Your task to perform on an android device: clear history in the chrome app Image 0: 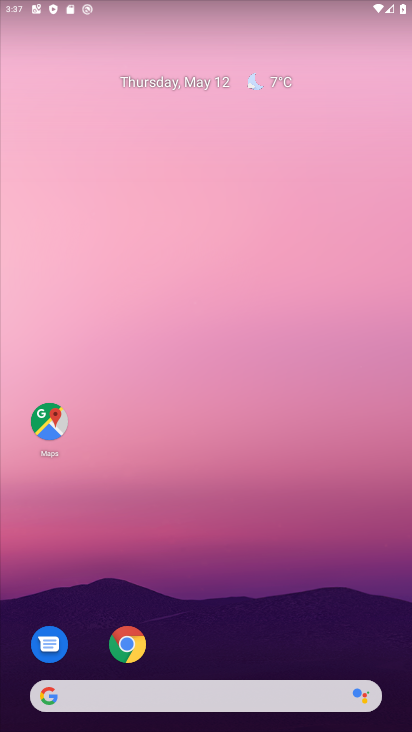
Step 0: click (129, 642)
Your task to perform on an android device: clear history in the chrome app Image 1: 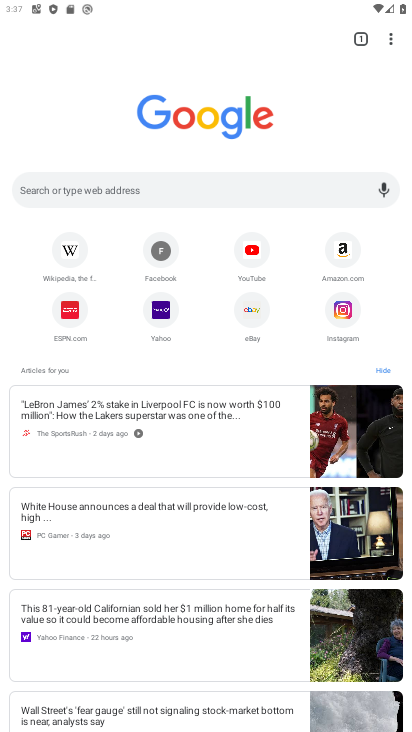
Step 1: click (396, 33)
Your task to perform on an android device: clear history in the chrome app Image 2: 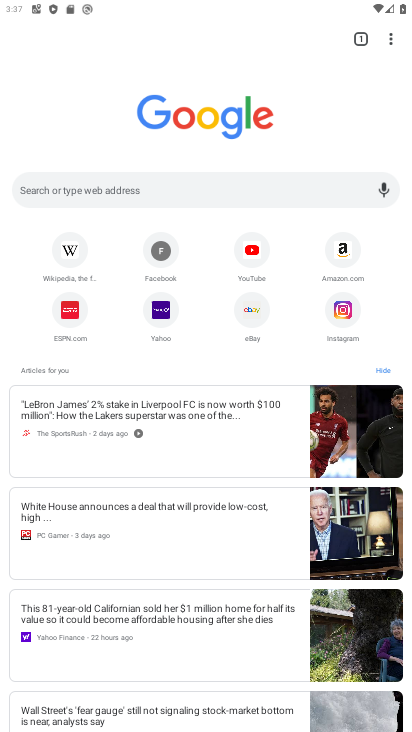
Step 2: click (390, 38)
Your task to perform on an android device: clear history in the chrome app Image 3: 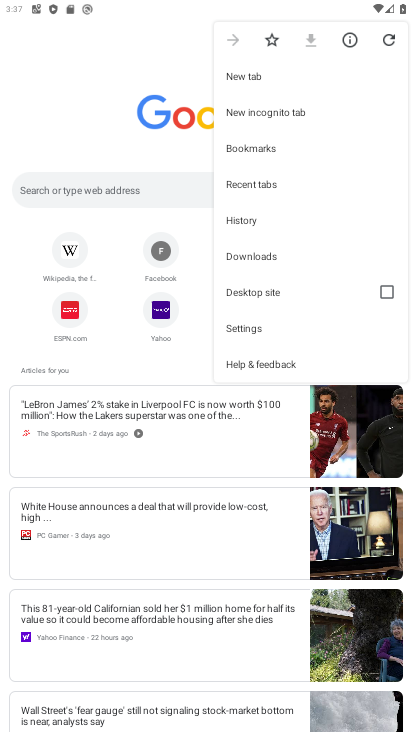
Step 3: click (255, 215)
Your task to perform on an android device: clear history in the chrome app Image 4: 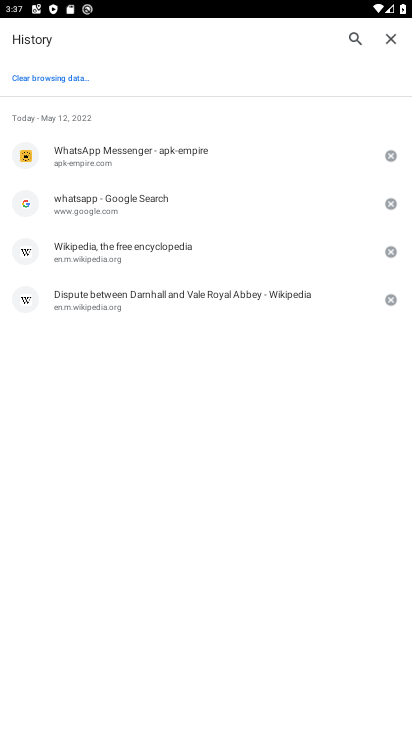
Step 4: click (61, 77)
Your task to perform on an android device: clear history in the chrome app Image 5: 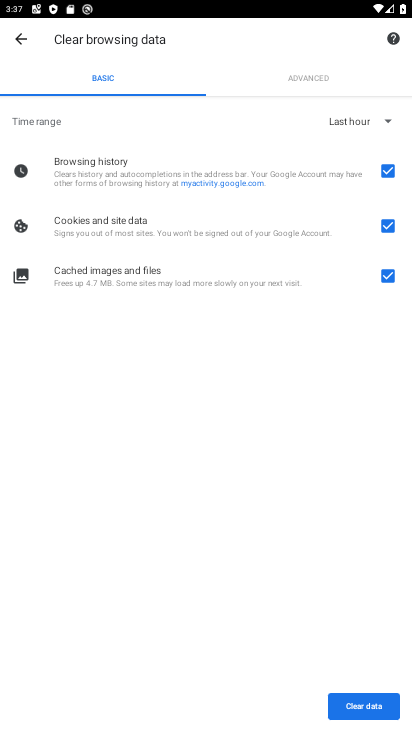
Step 5: click (356, 708)
Your task to perform on an android device: clear history in the chrome app Image 6: 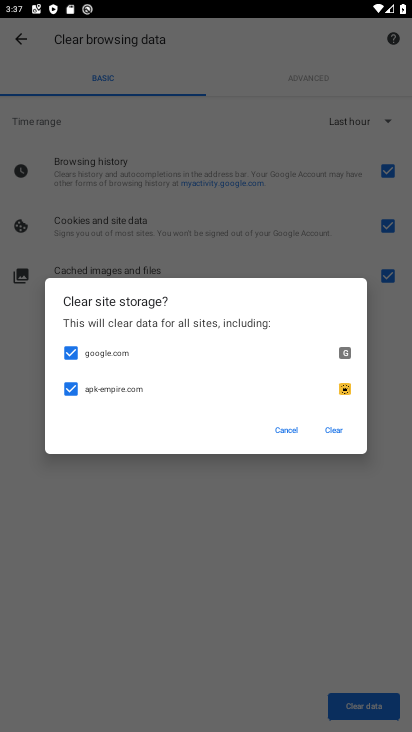
Step 6: click (339, 427)
Your task to perform on an android device: clear history in the chrome app Image 7: 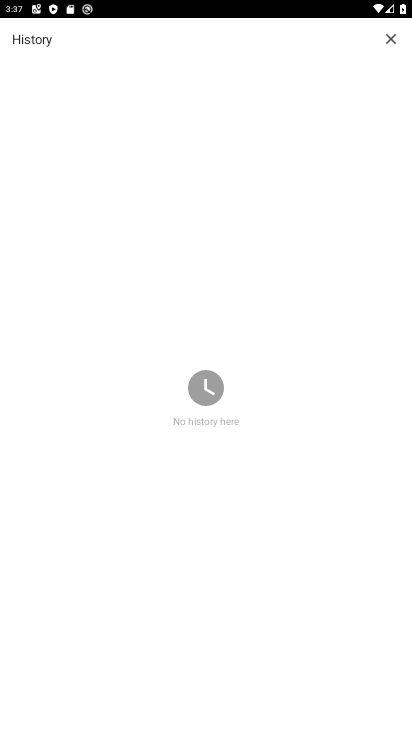
Step 7: task complete